Your task to perform on an android device: check data usage Image 0: 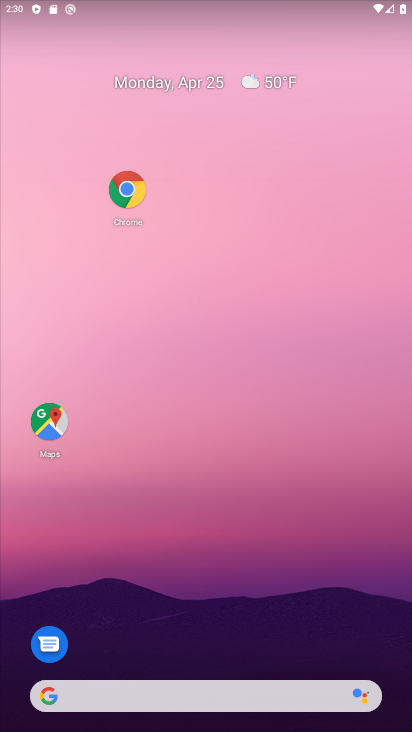
Step 0: drag from (194, 666) to (256, 103)
Your task to perform on an android device: check data usage Image 1: 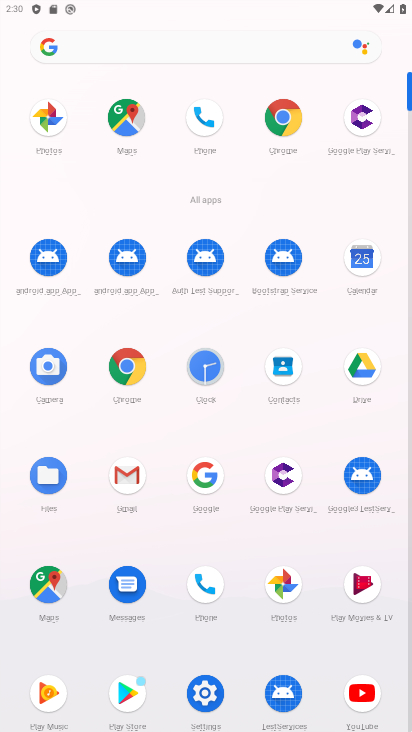
Step 1: click (203, 700)
Your task to perform on an android device: check data usage Image 2: 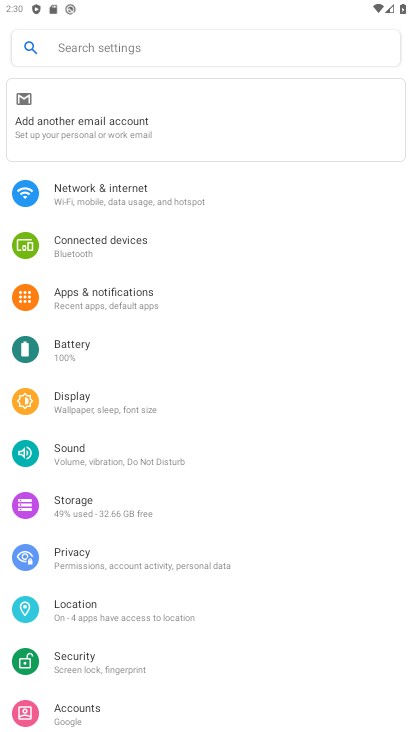
Step 2: click (187, 202)
Your task to perform on an android device: check data usage Image 3: 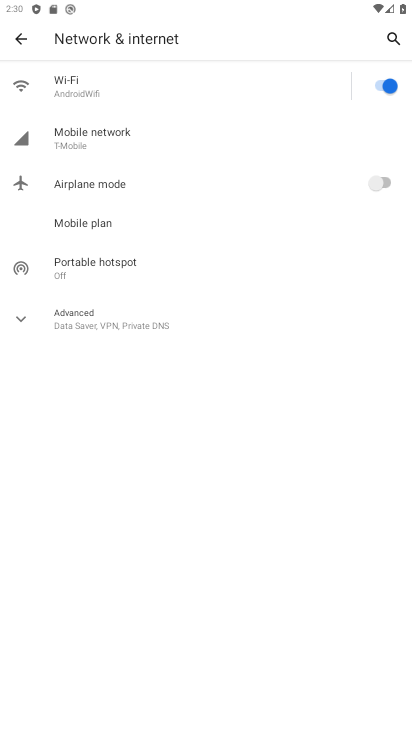
Step 3: click (114, 227)
Your task to perform on an android device: check data usage Image 4: 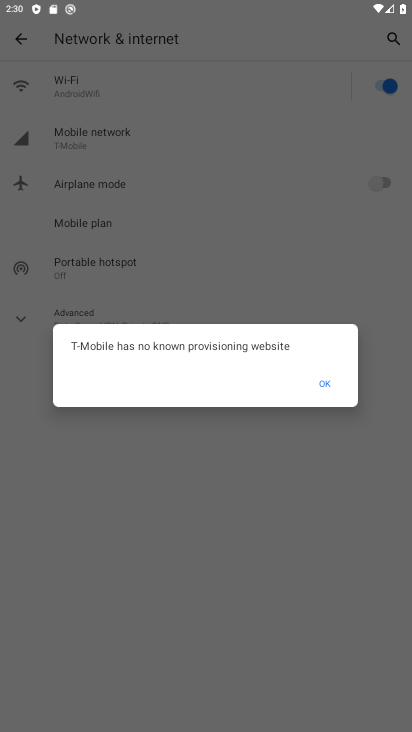
Step 4: click (133, 114)
Your task to perform on an android device: check data usage Image 5: 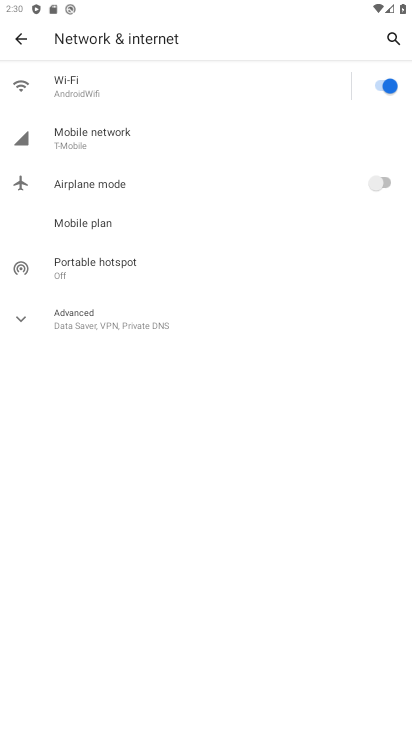
Step 5: click (313, 383)
Your task to perform on an android device: check data usage Image 6: 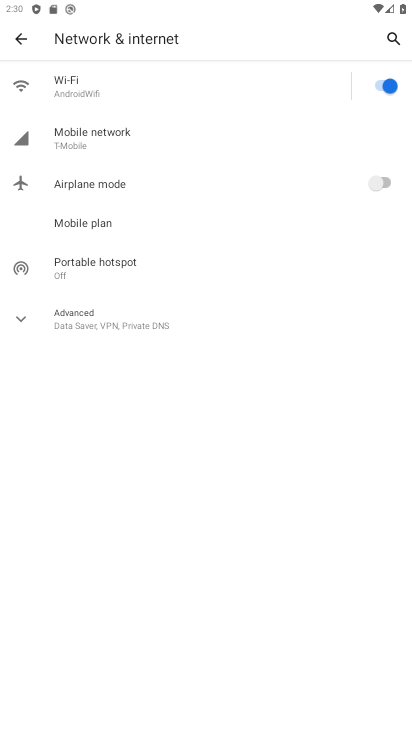
Step 6: click (140, 148)
Your task to perform on an android device: check data usage Image 7: 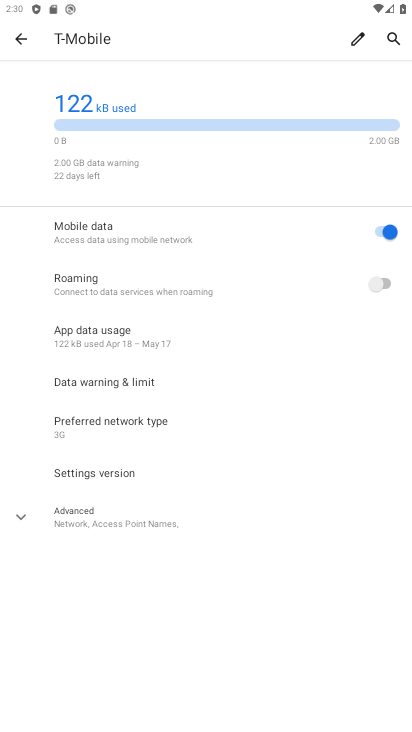
Step 7: task complete